Your task to perform on an android device: Open Google Maps and go to "Timeline" Image 0: 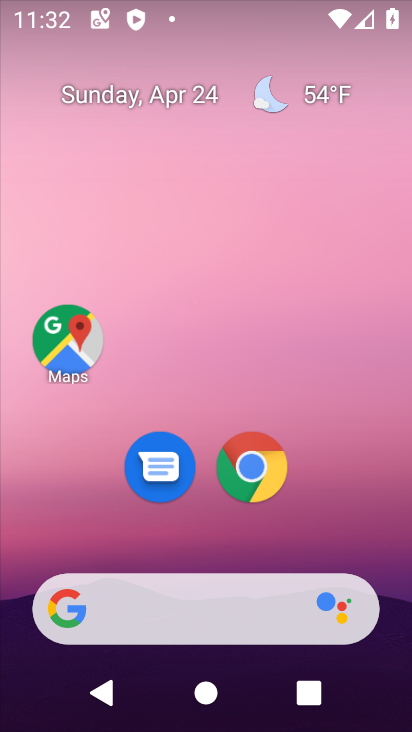
Step 0: drag from (206, 473) to (255, 218)
Your task to perform on an android device: Open Google Maps and go to "Timeline" Image 1: 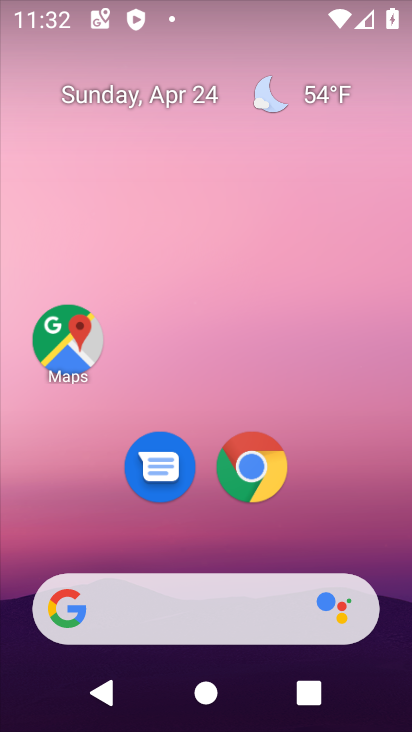
Step 1: drag from (208, 549) to (246, 170)
Your task to perform on an android device: Open Google Maps and go to "Timeline" Image 2: 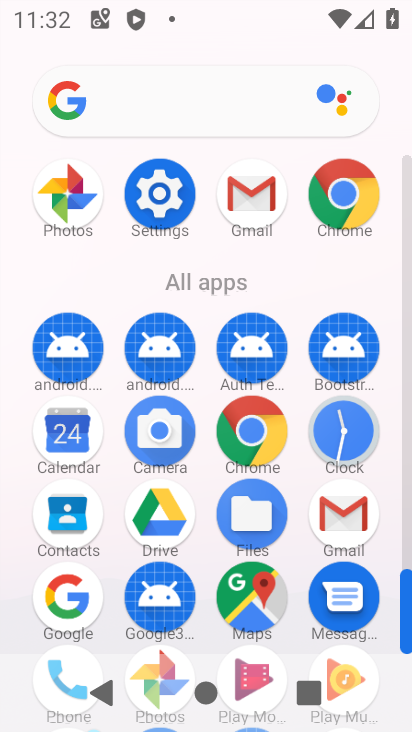
Step 2: click (251, 599)
Your task to perform on an android device: Open Google Maps and go to "Timeline" Image 3: 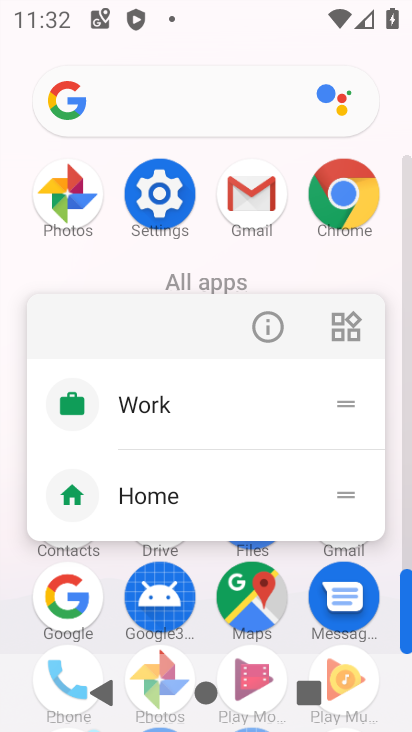
Step 3: click (238, 334)
Your task to perform on an android device: Open Google Maps and go to "Timeline" Image 4: 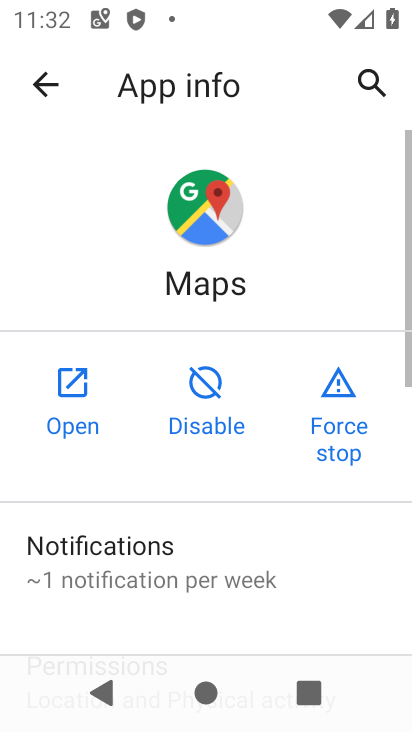
Step 4: click (52, 396)
Your task to perform on an android device: Open Google Maps and go to "Timeline" Image 5: 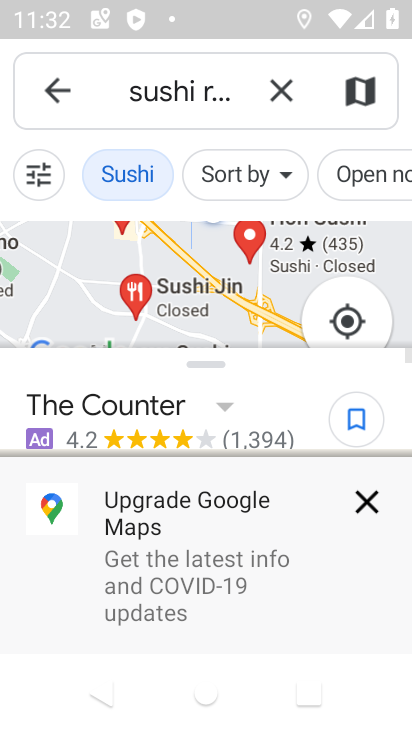
Step 5: click (272, 96)
Your task to perform on an android device: Open Google Maps and go to "Timeline" Image 6: 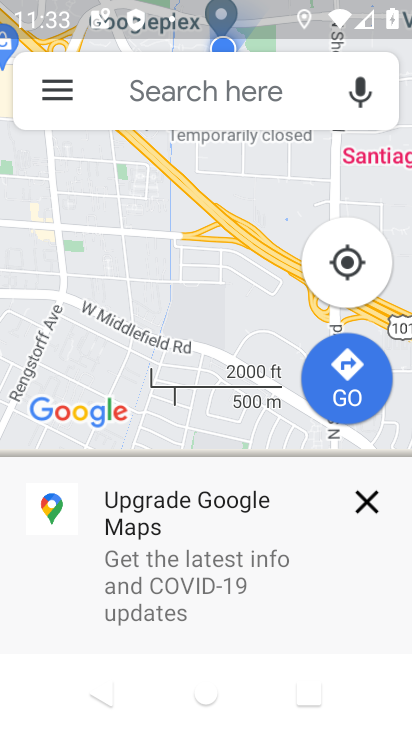
Step 6: click (69, 93)
Your task to perform on an android device: Open Google Maps and go to "Timeline" Image 7: 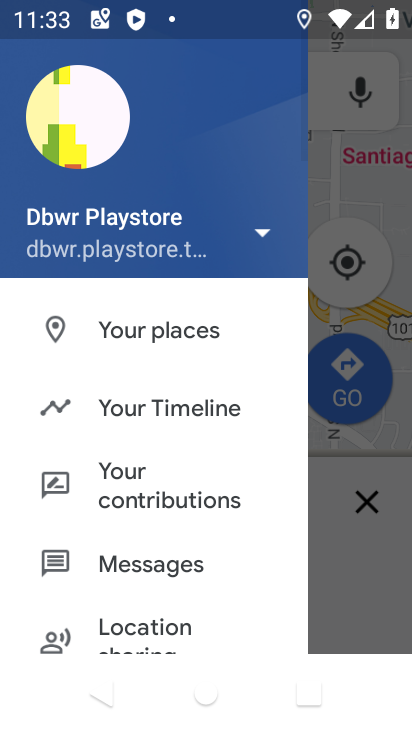
Step 7: click (162, 415)
Your task to perform on an android device: Open Google Maps and go to "Timeline" Image 8: 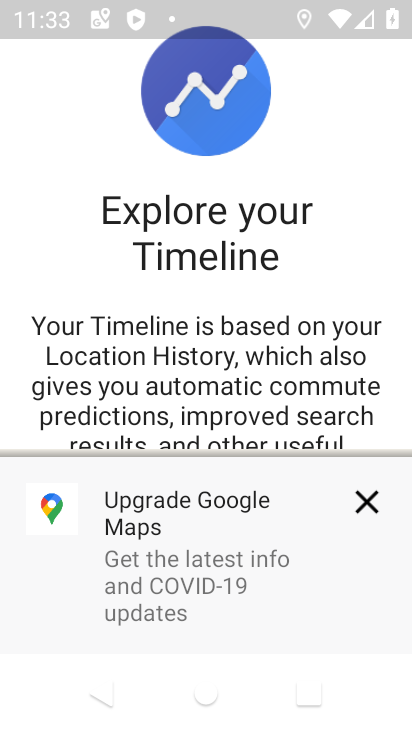
Step 8: click (367, 509)
Your task to perform on an android device: Open Google Maps and go to "Timeline" Image 9: 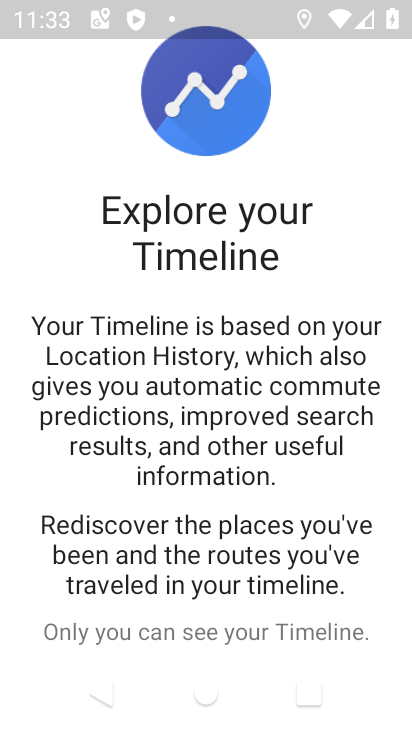
Step 9: drag from (290, 520) to (349, 215)
Your task to perform on an android device: Open Google Maps and go to "Timeline" Image 10: 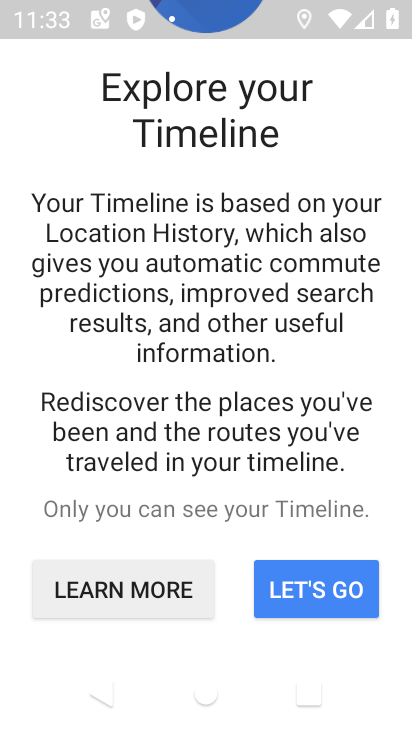
Step 10: click (301, 595)
Your task to perform on an android device: Open Google Maps and go to "Timeline" Image 11: 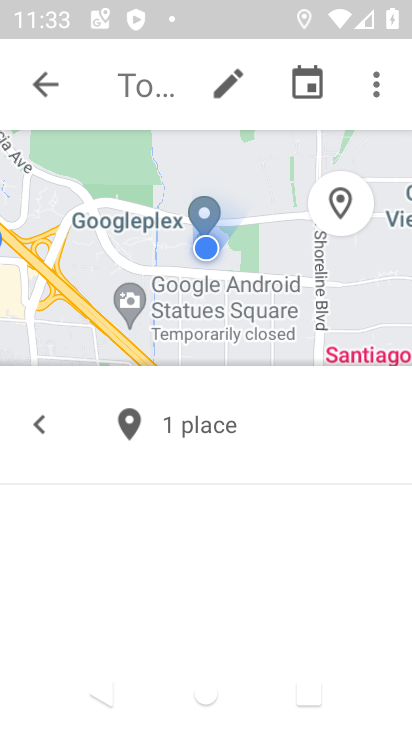
Step 11: task complete